Your task to perform on an android device: Open calendar and show me the first week of next month Image 0: 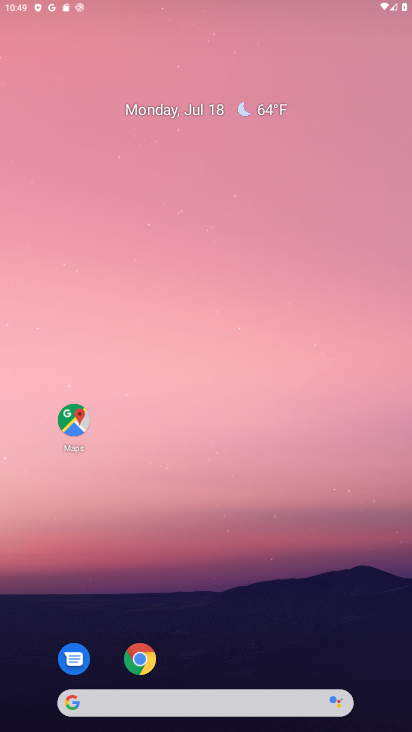
Step 0: press home button
Your task to perform on an android device: Open calendar and show me the first week of next month Image 1: 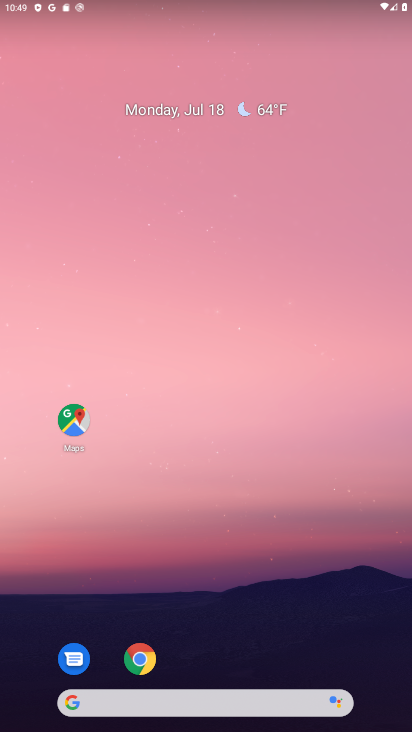
Step 1: drag from (350, 610) to (260, 241)
Your task to perform on an android device: Open calendar and show me the first week of next month Image 2: 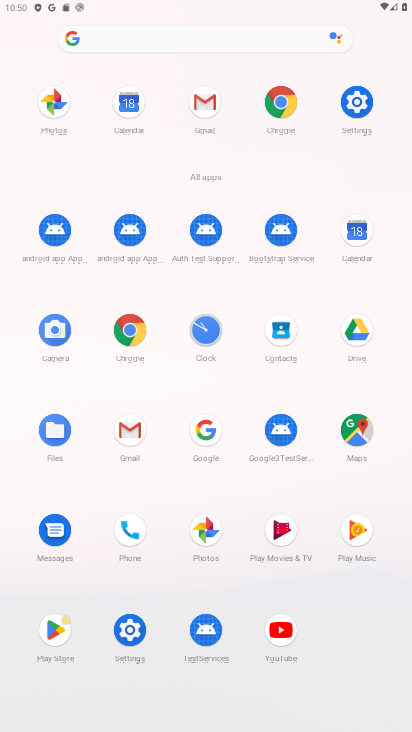
Step 2: click (218, 526)
Your task to perform on an android device: Open calendar and show me the first week of next month Image 3: 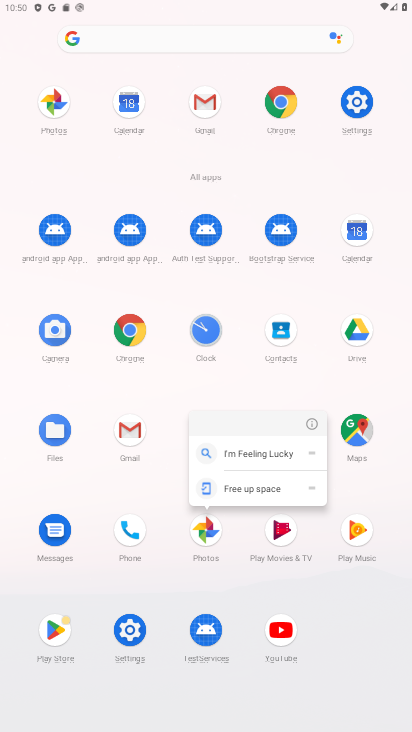
Step 3: click (347, 248)
Your task to perform on an android device: Open calendar and show me the first week of next month Image 4: 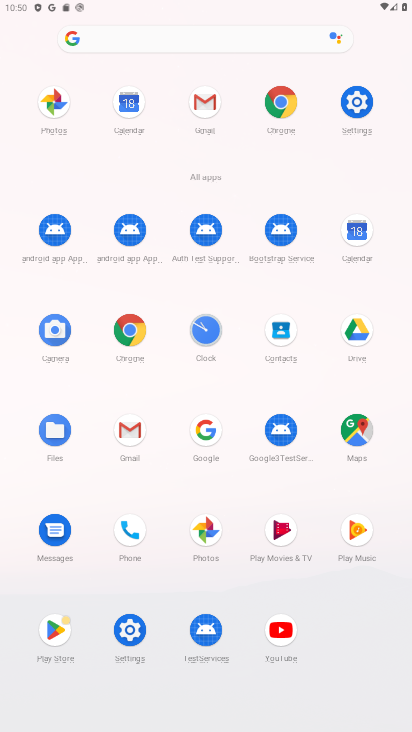
Step 4: click (347, 248)
Your task to perform on an android device: Open calendar and show me the first week of next month Image 5: 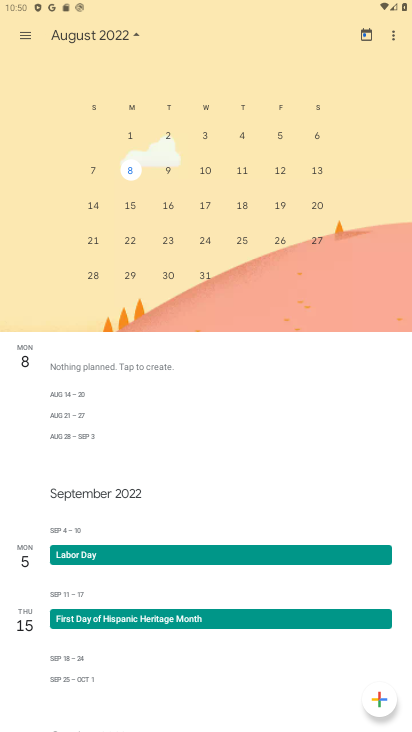
Step 5: click (132, 130)
Your task to perform on an android device: Open calendar and show me the first week of next month Image 6: 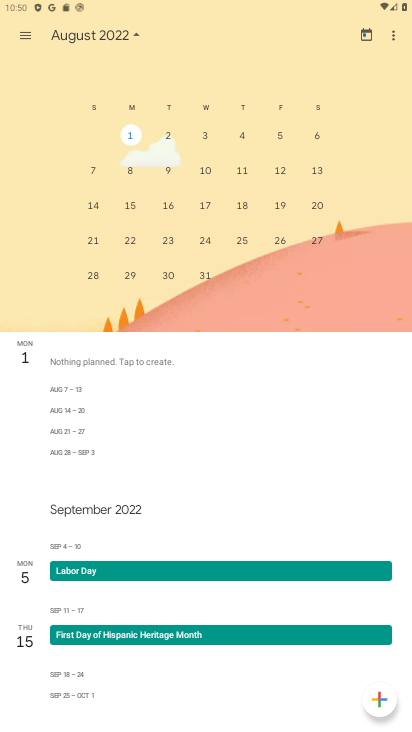
Step 6: task complete